Your task to perform on an android device: Go to notification settings Image 0: 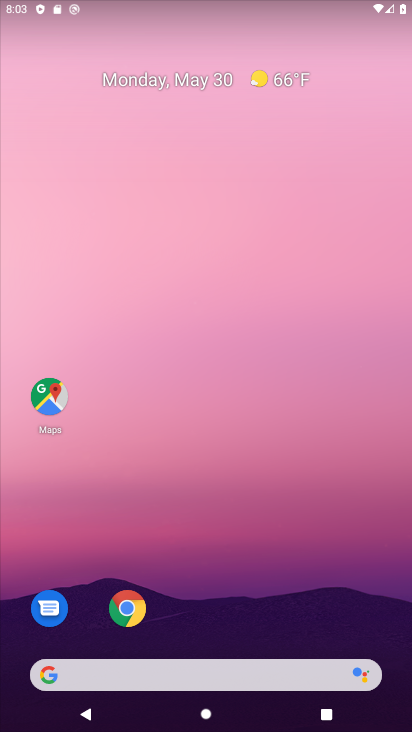
Step 0: drag from (233, 724) to (323, 0)
Your task to perform on an android device: Go to notification settings Image 1: 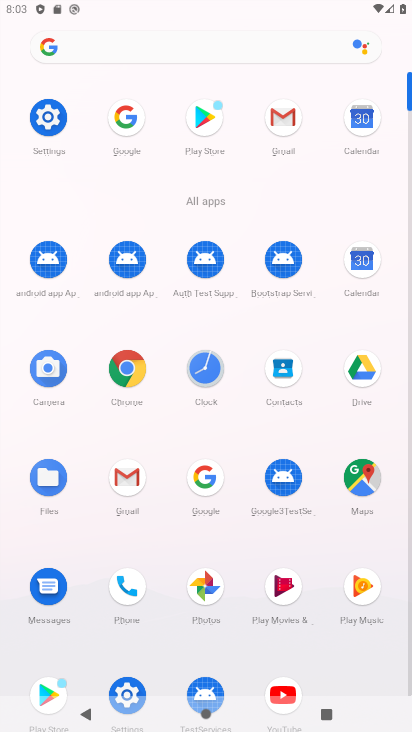
Step 1: click (47, 113)
Your task to perform on an android device: Go to notification settings Image 2: 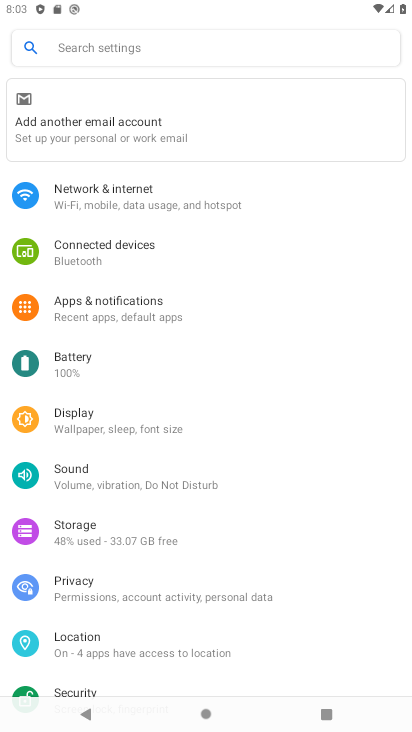
Step 2: click (97, 312)
Your task to perform on an android device: Go to notification settings Image 3: 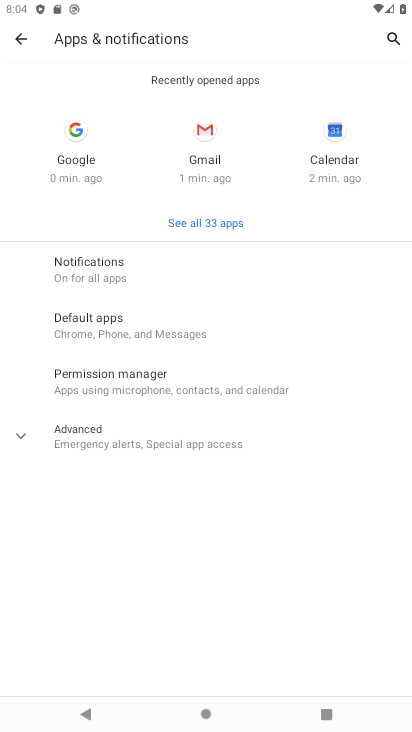
Step 3: click (88, 267)
Your task to perform on an android device: Go to notification settings Image 4: 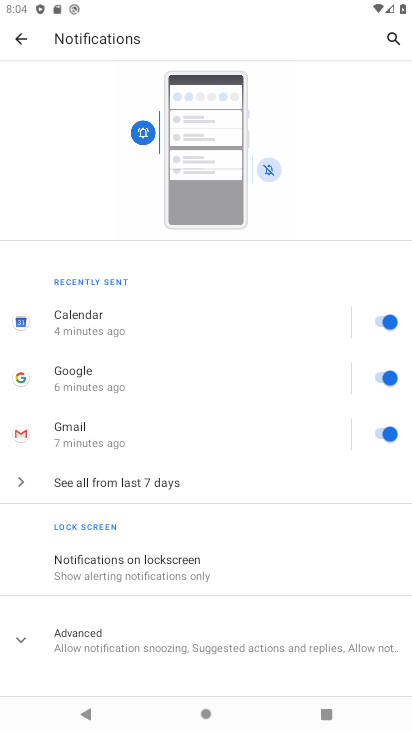
Step 4: task complete